Your task to perform on an android device: all mails in gmail Image 0: 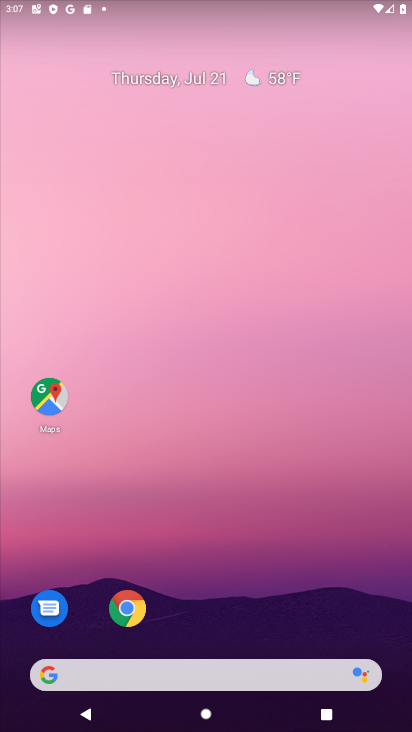
Step 0: press home button
Your task to perform on an android device: all mails in gmail Image 1: 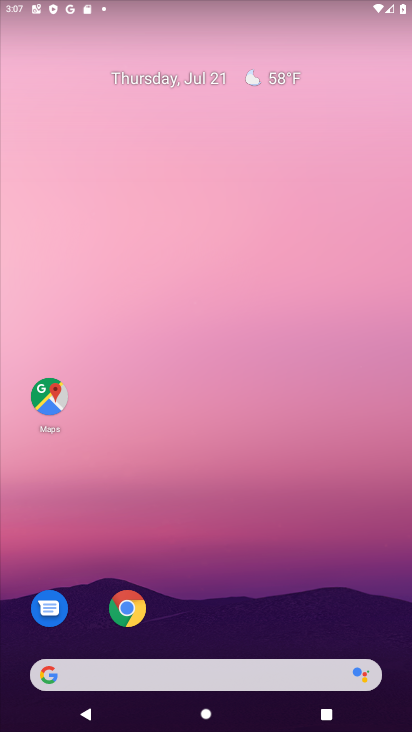
Step 1: drag from (226, 635) to (274, 80)
Your task to perform on an android device: all mails in gmail Image 2: 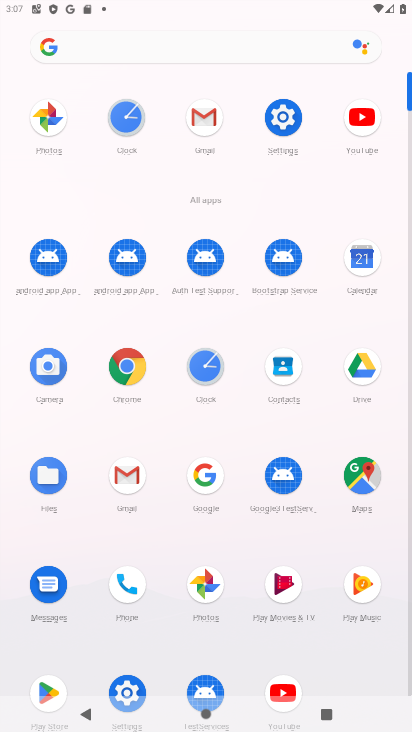
Step 2: click (127, 468)
Your task to perform on an android device: all mails in gmail Image 3: 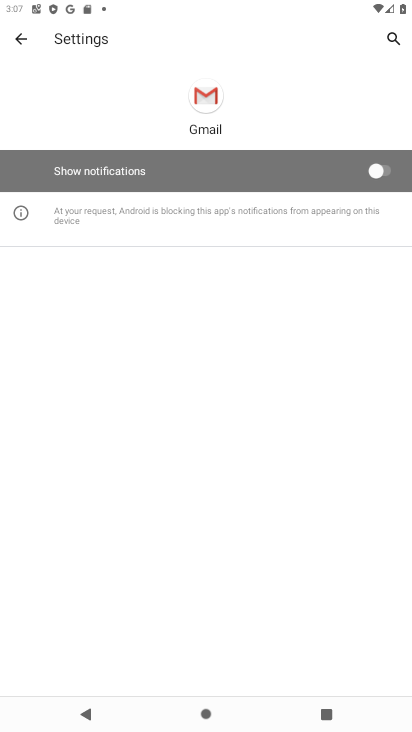
Step 3: click (16, 31)
Your task to perform on an android device: all mails in gmail Image 4: 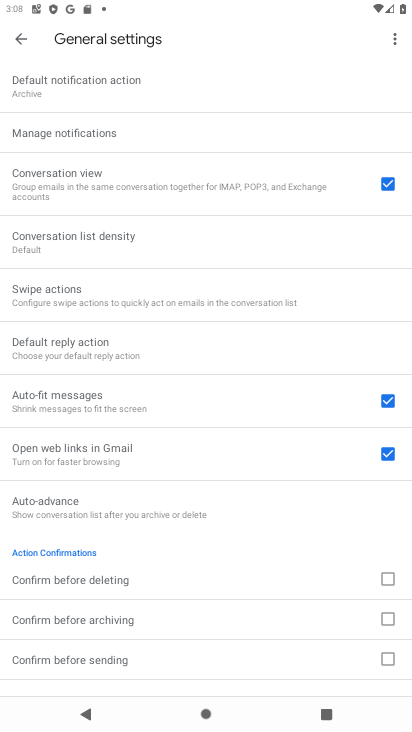
Step 4: click (20, 37)
Your task to perform on an android device: all mails in gmail Image 5: 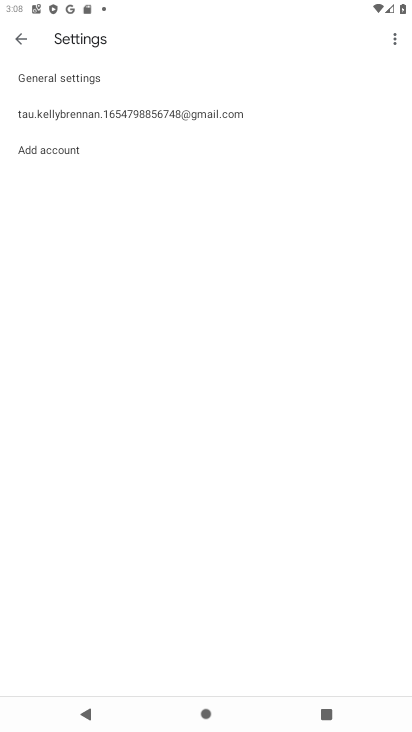
Step 5: click (20, 37)
Your task to perform on an android device: all mails in gmail Image 6: 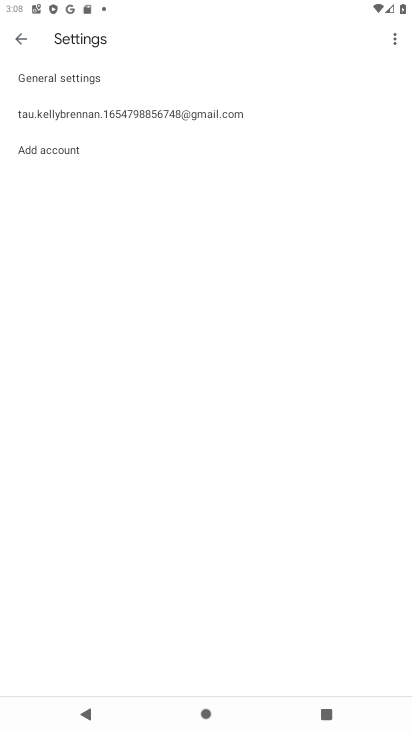
Step 6: click (24, 44)
Your task to perform on an android device: all mails in gmail Image 7: 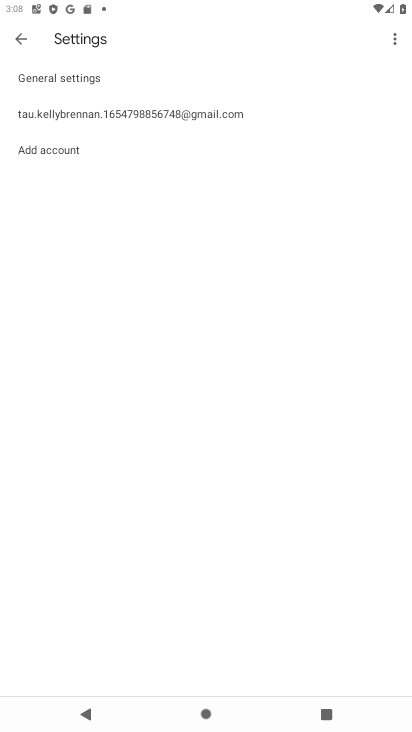
Step 7: click (24, 44)
Your task to perform on an android device: all mails in gmail Image 8: 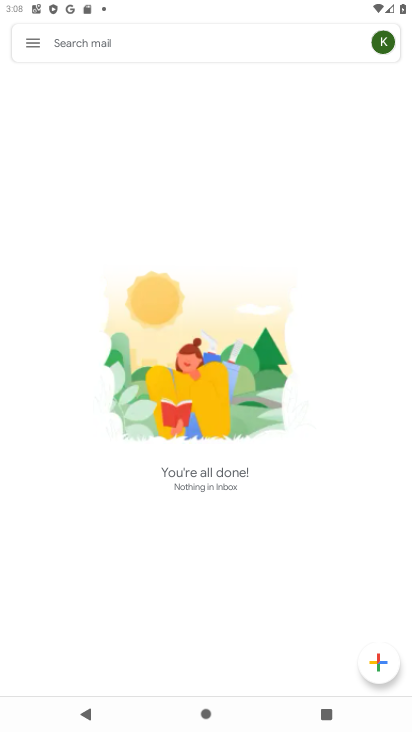
Step 8: click (24, 44)
Your task to perform on an android device: all mails in gmail Image 9: 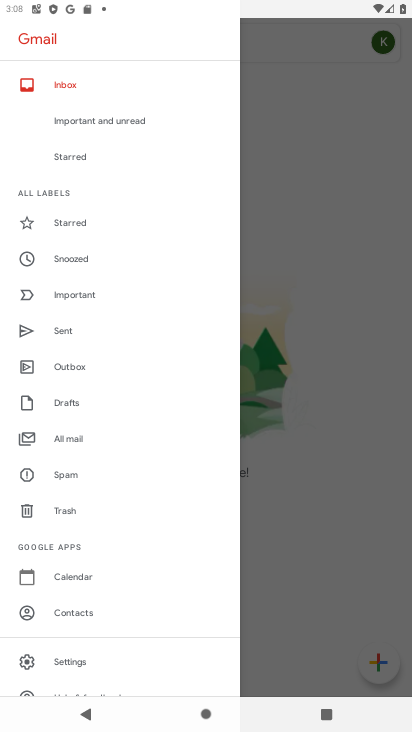
Step 9: click (76, 435)
Your task to perform on an android device: all mails in gmail Image 10: 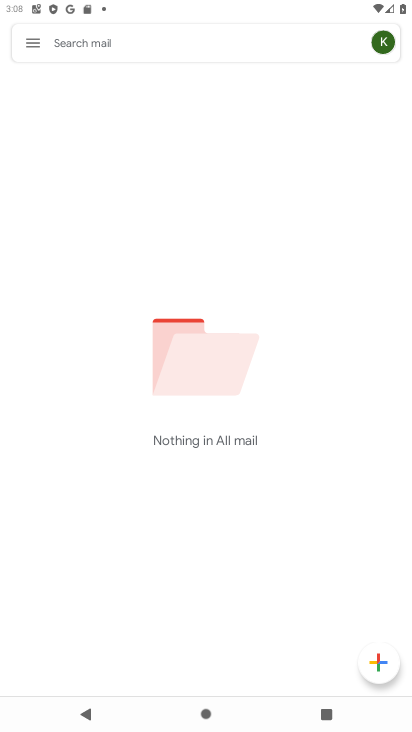
Step 10: task complete